Your task to perform on an android device: Go to Android settings Image 0: 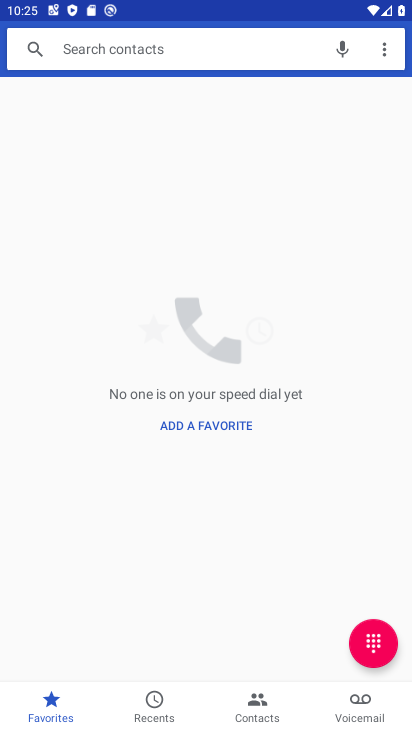
Step 0: press home button
Your task to perform on an android device: Go to Android settings Image 1: 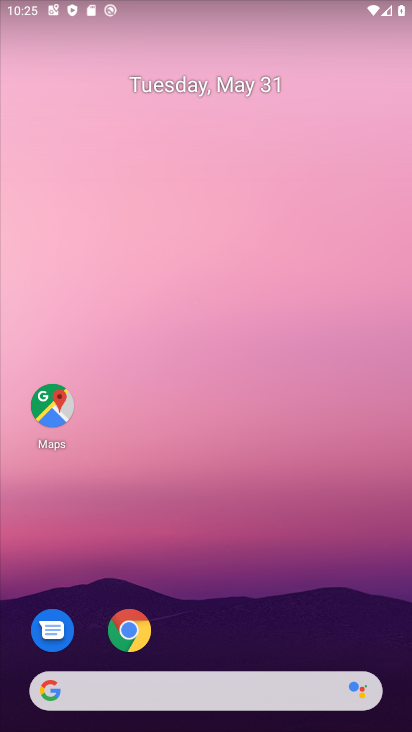
Step 1: drag from (309, 597) to (248, 163)
Your task to perform on an android device: Go to Android settings Image 2: 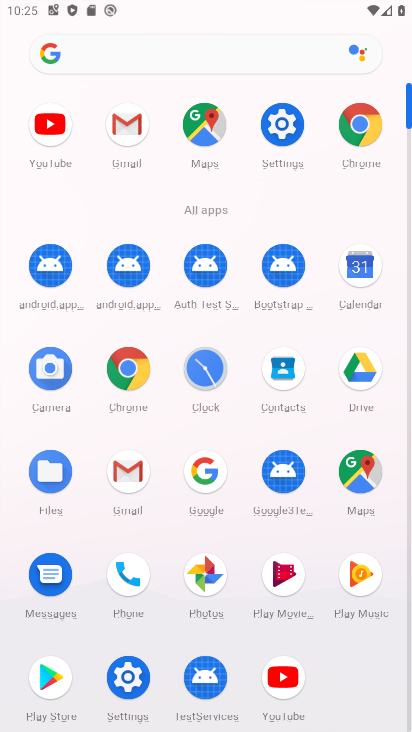
Step 2: click (283, 127)
Your task to perform on an android device: Go to Android settings Image 3: 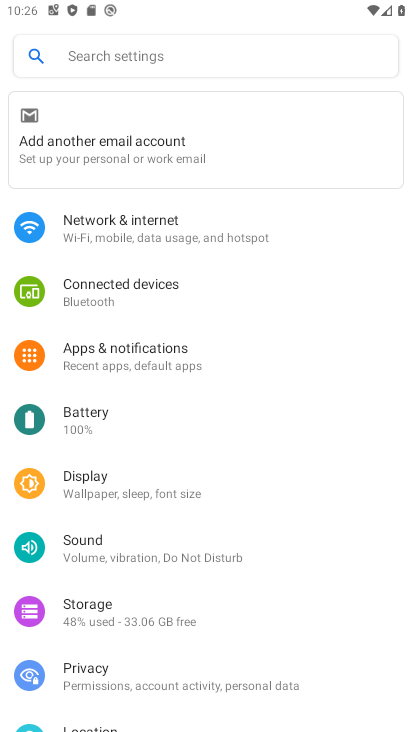
Step 3: task complete